Your task to perform on an android device: add a contact in the contacts app Image 0: 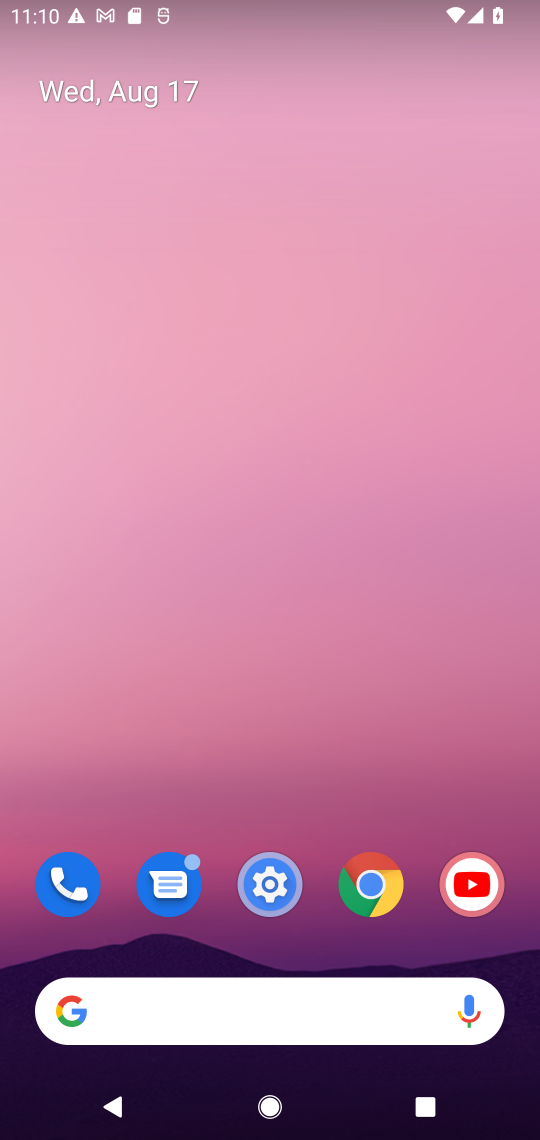
Step 0: press home button
Your task to perform on an android device: add a contact in the contacts app Image 1: 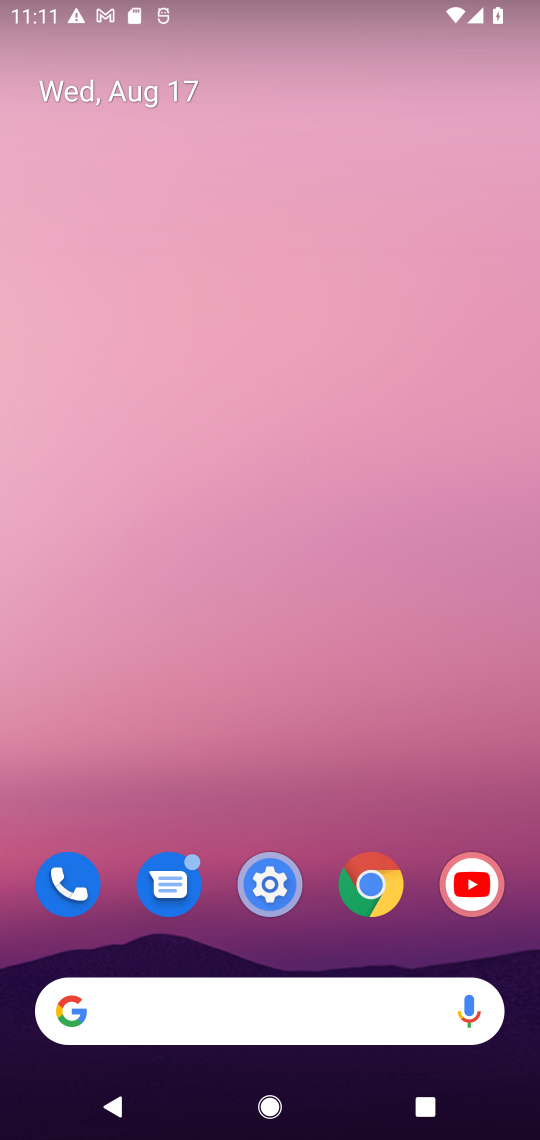
Step 1: drag from (314, 958) to (206, 230)
Your task to perform on an android device: add a contact in the contacts app Image 2: 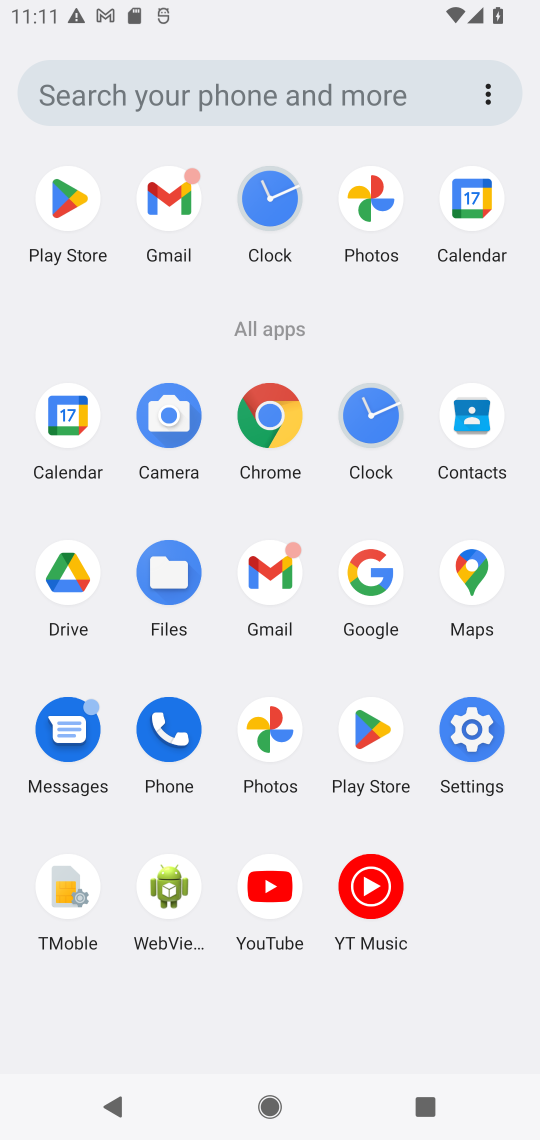
Step 2: click (457, 419)
Your task to perform on an android device: add a contact in the contacts app Image 3: 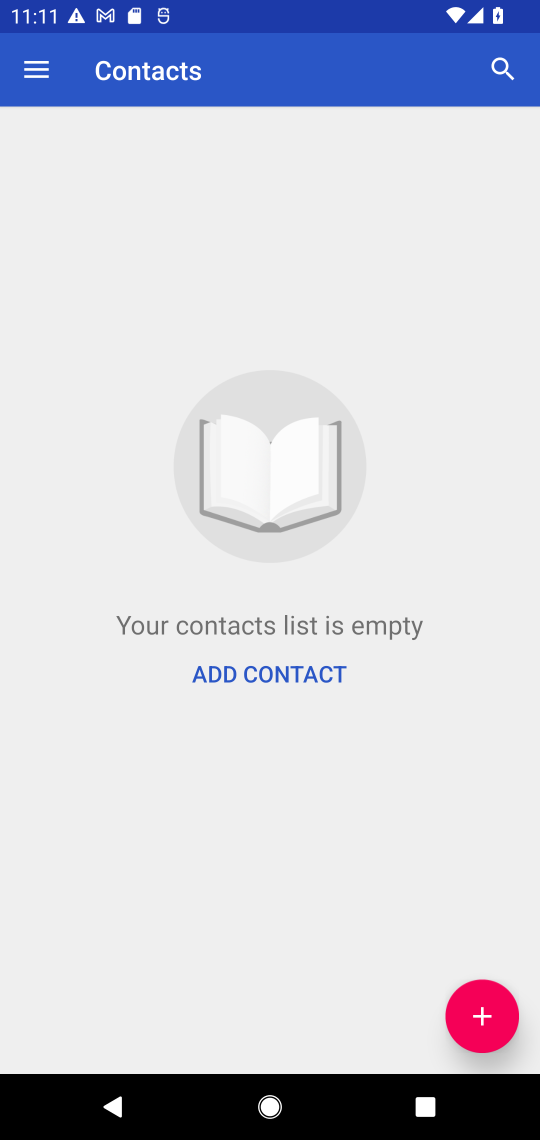
Step 3: click (474, 1015)
Your task to perform on an android device: add a contact in the contacts app Image 4: 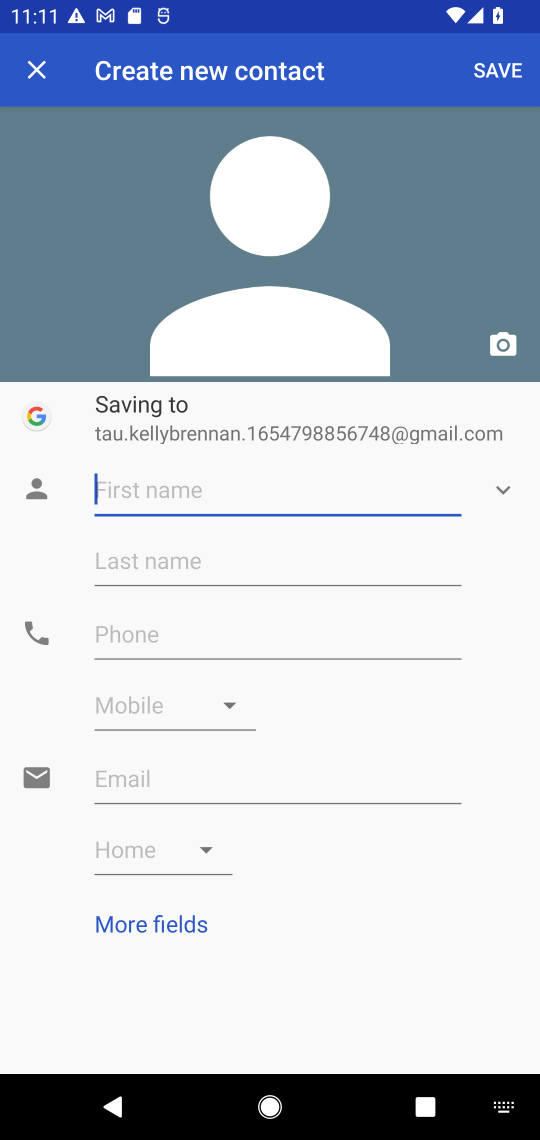
Step 4: type "mmmmm"
Your task to perform on an android device: add a contact in the contacts app Image 5: 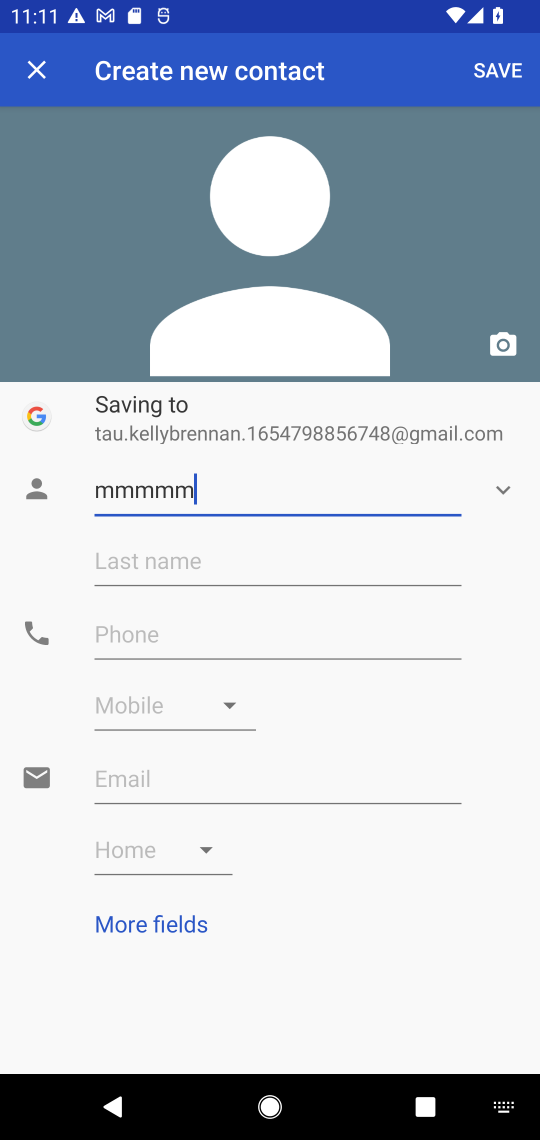
Step 5: press enter
Your task to perform on an android device: add a contact in the contacts app Image 6: 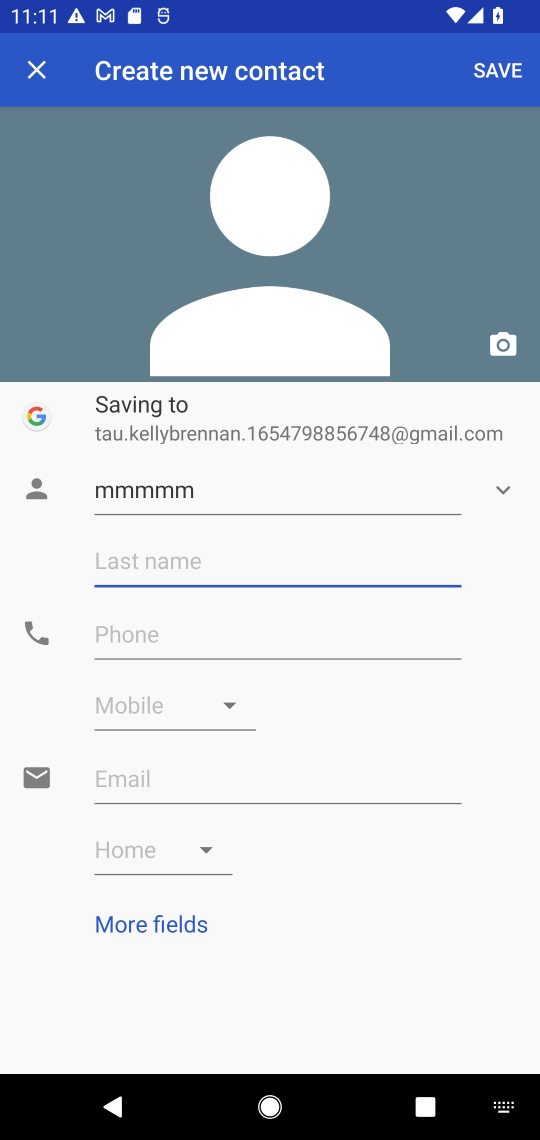
Step 6: click (230, 633)
Your task to perform on an android device: add a contact in the contacts app Image 7: 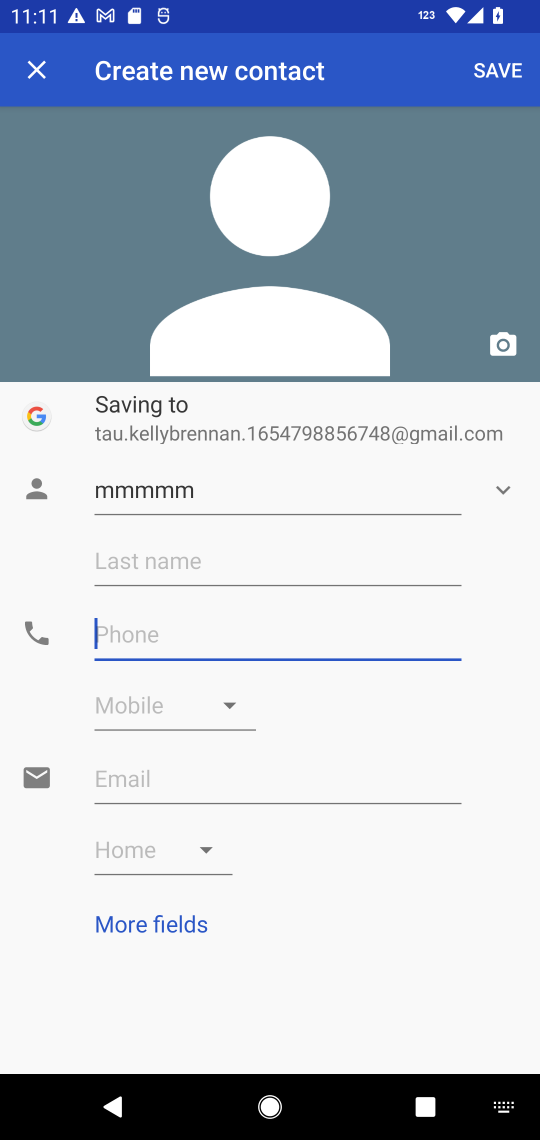
Step 7: type "88888"
Your task to perform on an android device: add a contact in the contacts app Image 8: 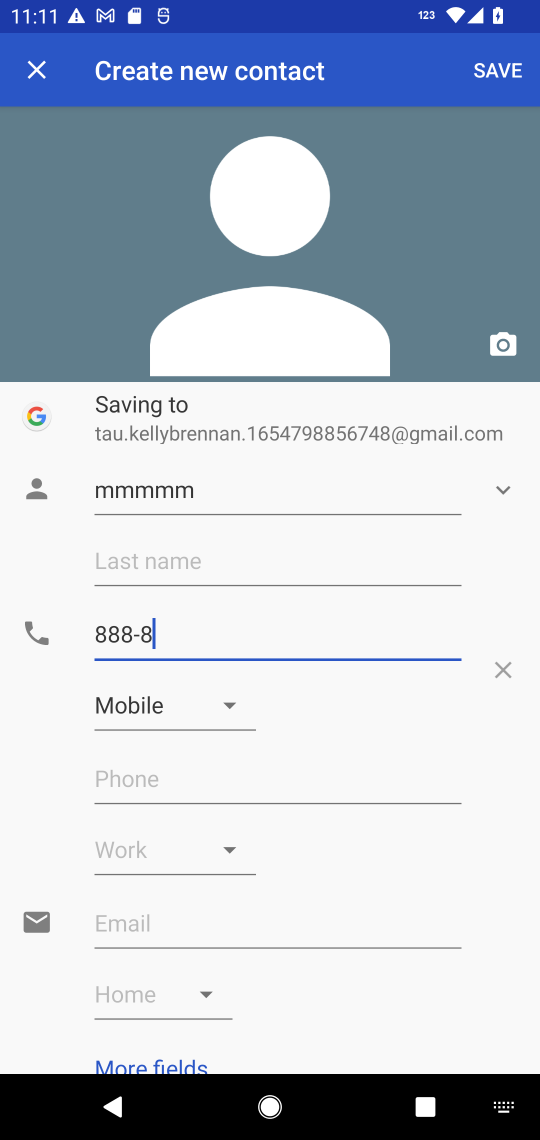
Step 8: press enter
Your task to perform on an android device: add a contact in the contacts app Image 9: 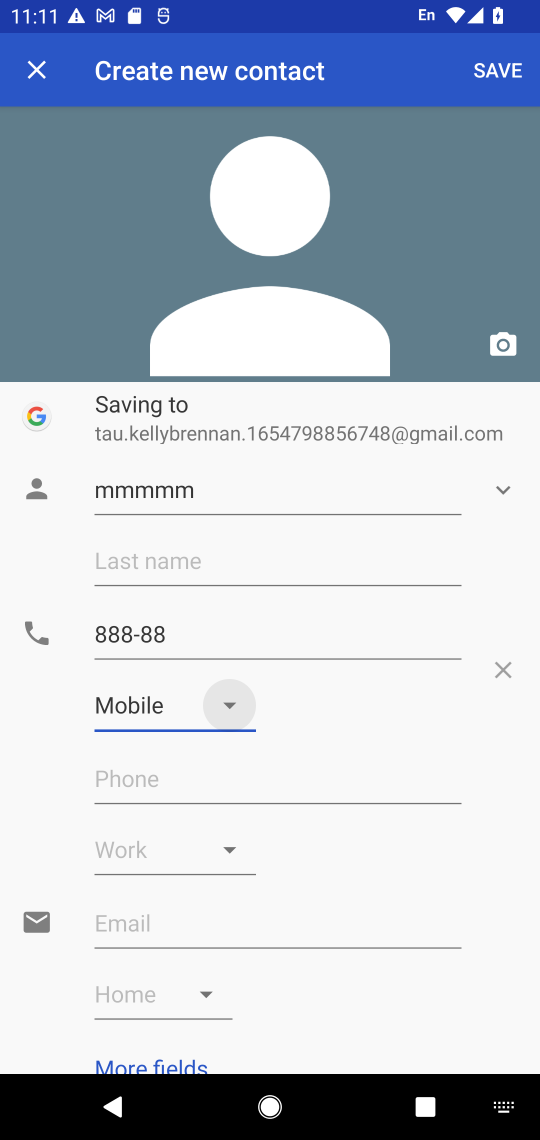
Step 9: click (498, 78)
Your task to perform on an android device: add a contact in the contacts app Image 10: 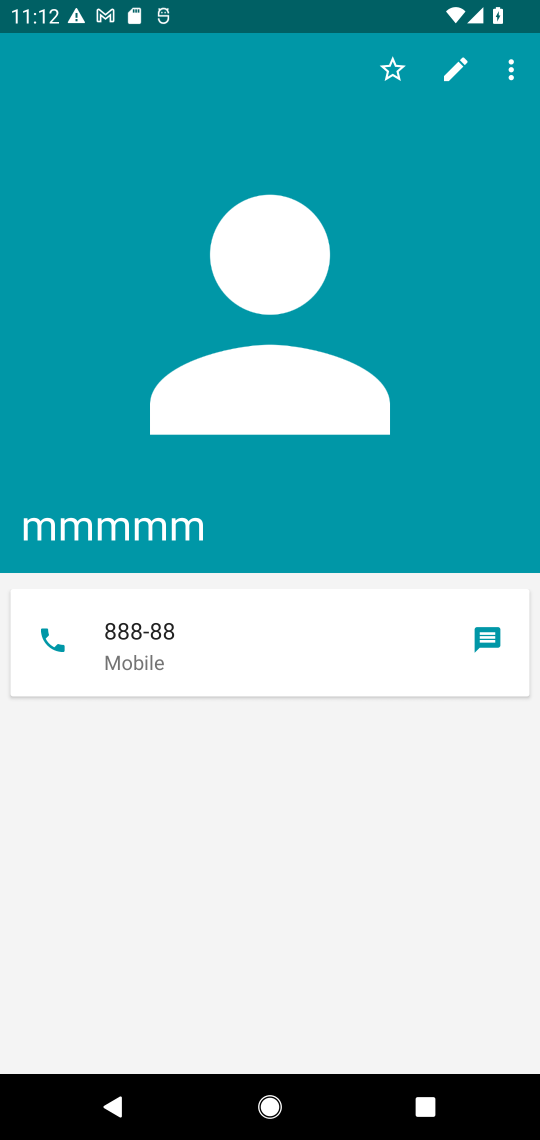
Step 10: task complete